Your task to perform on an android device: add a label to a message in the gmail app Image 0: 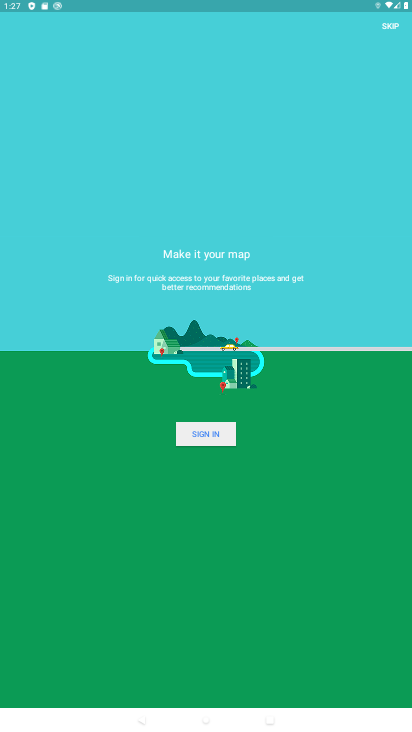
Step 0: press home button
Your task to perform on an android device: add a label to a message in the gmail app Image 1: 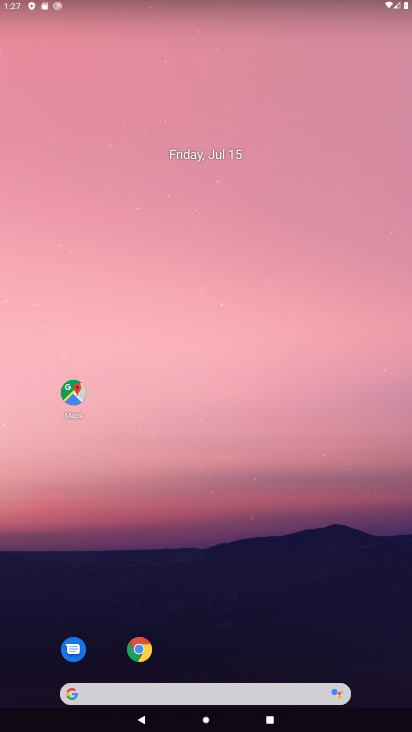
Step 1: drag from (307, 670) to (235, 246)
Your task to perform on an android device: add a label to a message in the gmail app Image 2: 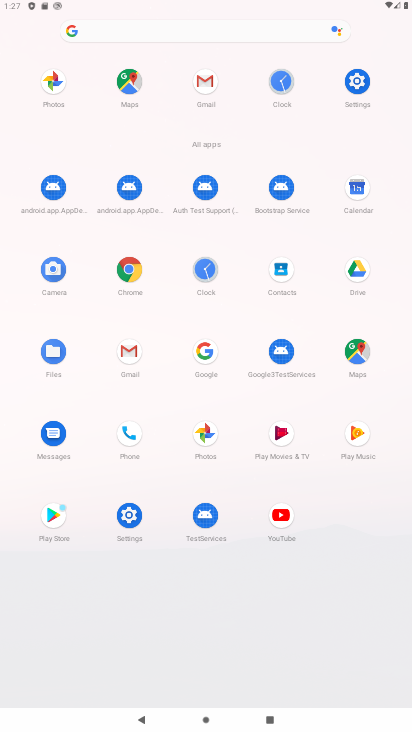
Step 2: click (208, 83)
Your task to perform on an android device: add a label to a message in the gmail app Image 3: 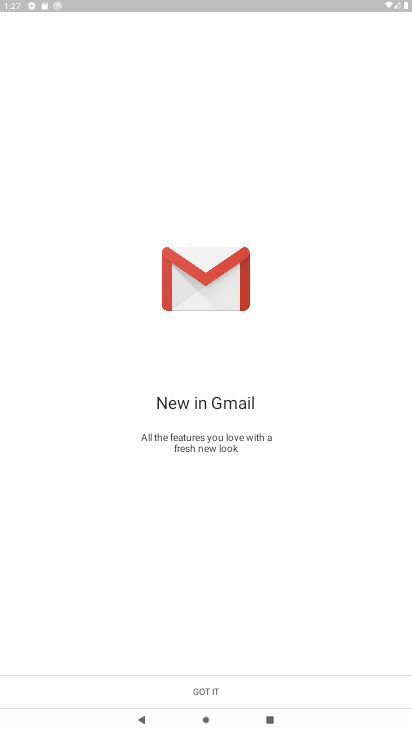
Step 3: click (217, 688)
Your task to perform on an android device: add a label to a message in the gmail app Image 4: 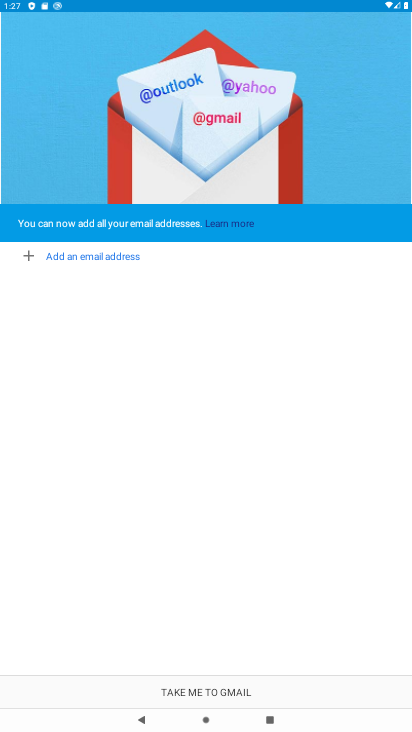
Step 4: click (217, 690)
Your task to perform on an android device: add a label to a message in the gmail app Image 5: 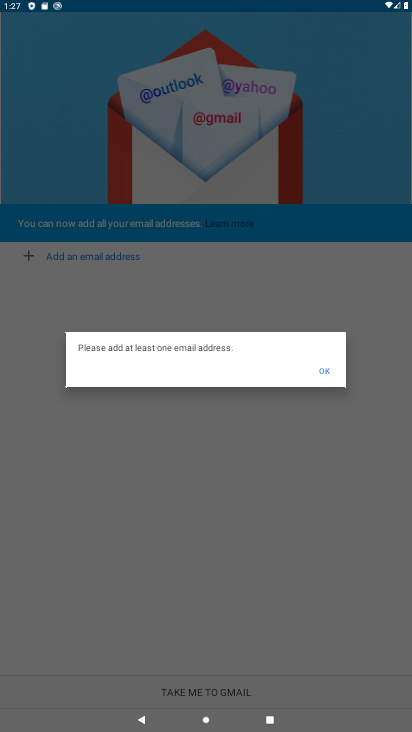
Step 5: task complete